Your task to perform on an android device: Open Chrome and go to settings Image 0: 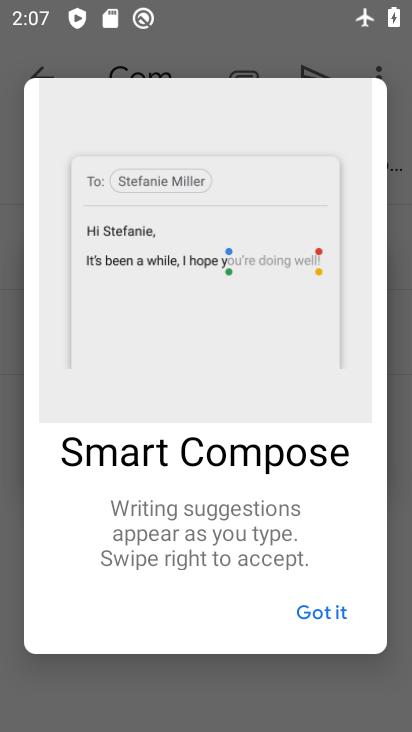
Step 0: press home button
Your task to perform on an android device: Open Chrome and go to settings Image 1: 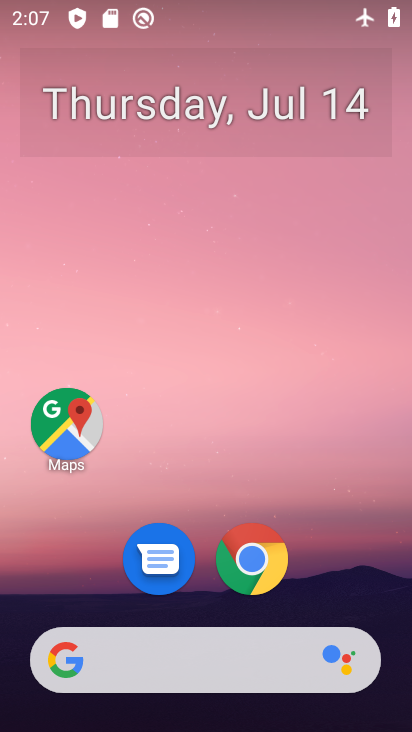
Step 1: drag from (285, 572) to (298, 93)
Your task to perform on an android device: Open Chrome and go to settings Image 2: 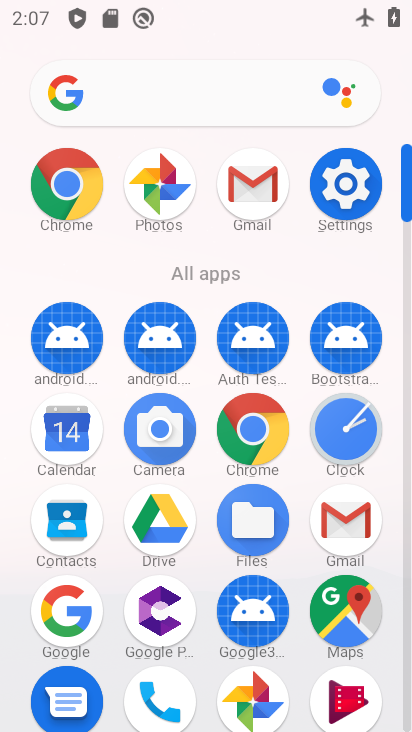
Step 2: click (71, 192)
Your task to perform on an android device: Open Chrome and go to settings Image 3: 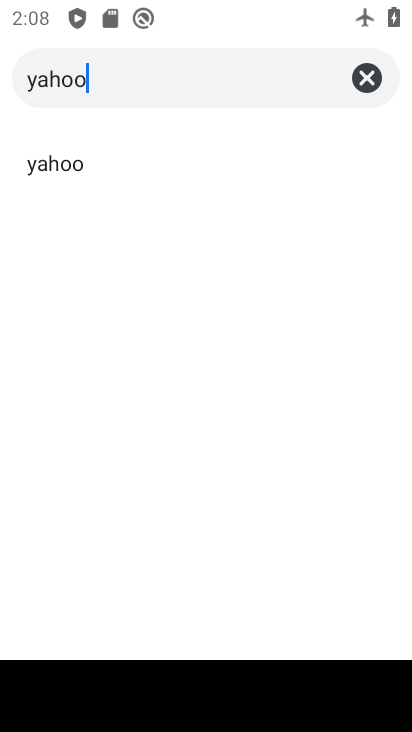
Step 3: task complete